Your task to perform on an android device: Go to Wikipedia Image 0: 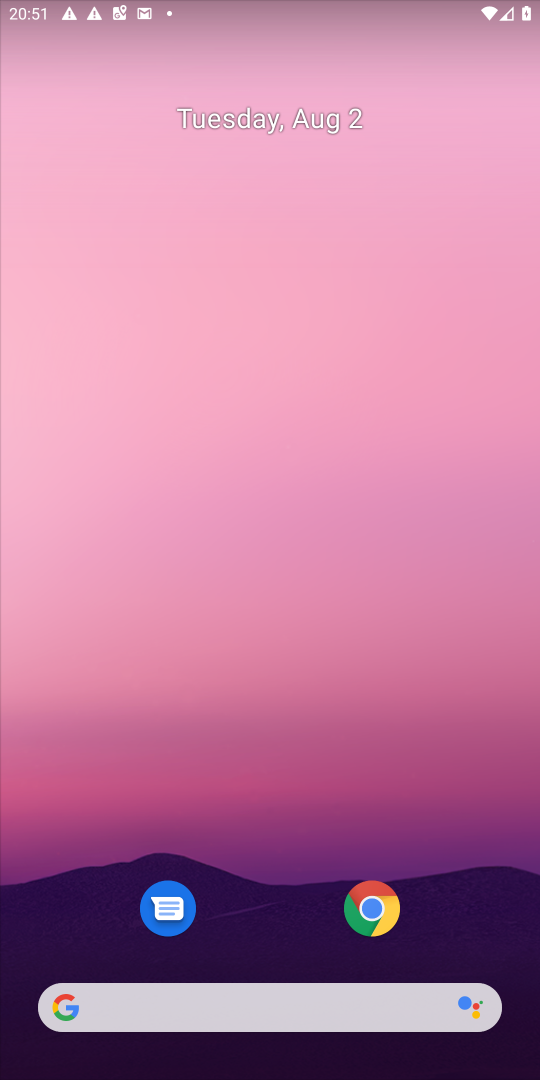
Step 0: drag from (361, 595) to (358, 214)
Your task to perform on an android device: Go to Wikipedia Image 1: 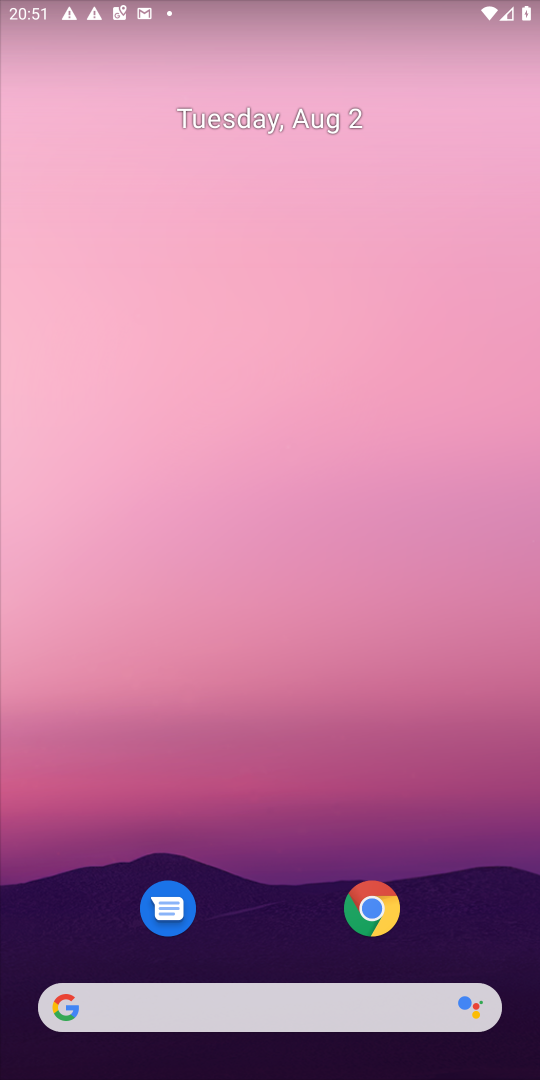
Step 1: drag from (401, 929) to (385, 170)
Your task to perform on an android device: Go to Wikipedia Image 2: 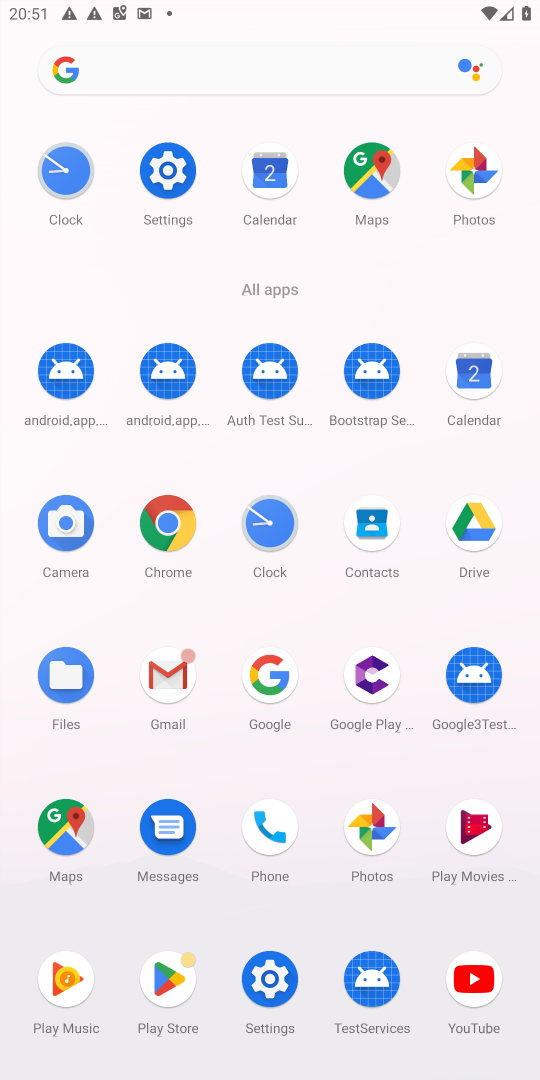
Step 2: click (161, 521)
Your task to perform on an android device: Go to Wikipedia Image 3: 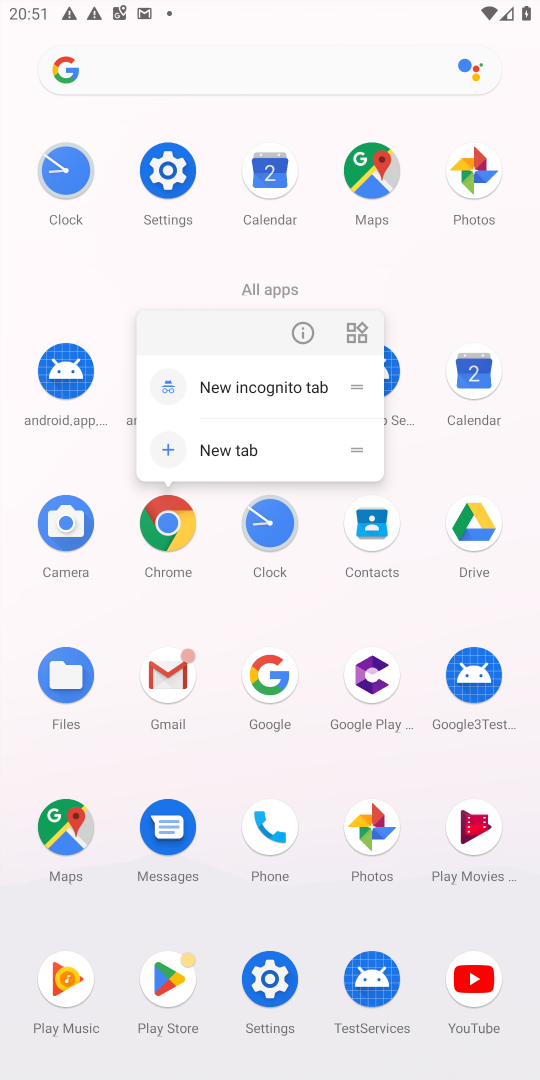
Step 3: click (171, 534)
Your task to perform on an android device: Go to Wikipedia Image 4: 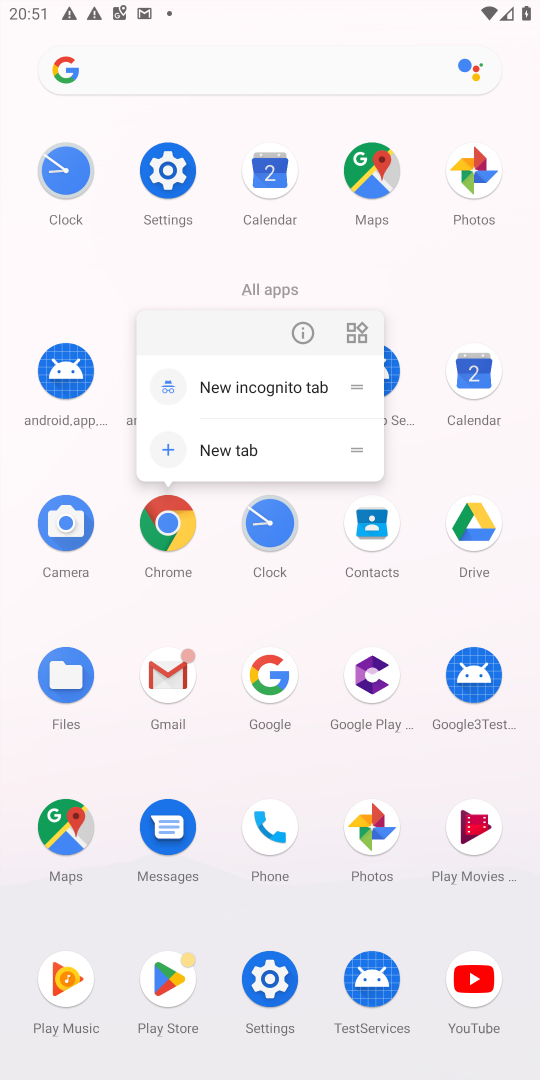
Step 4: click (150, 554)
Your task to perform on an android device: Go to Wikipedia Image 5: 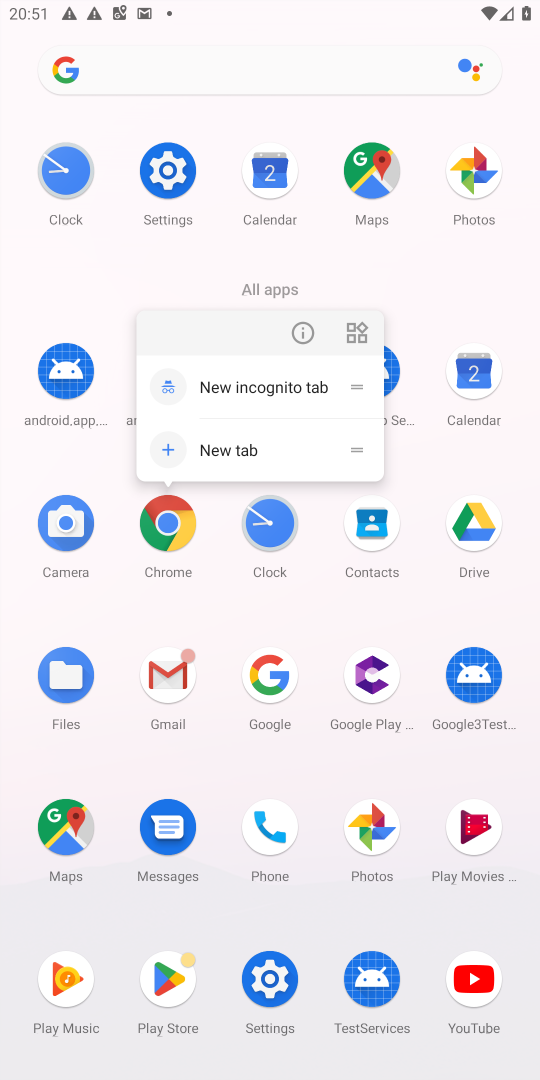
Step 5: click (164, 535)
Your task to perform on an android device: Go to Wikipedia Image 6: 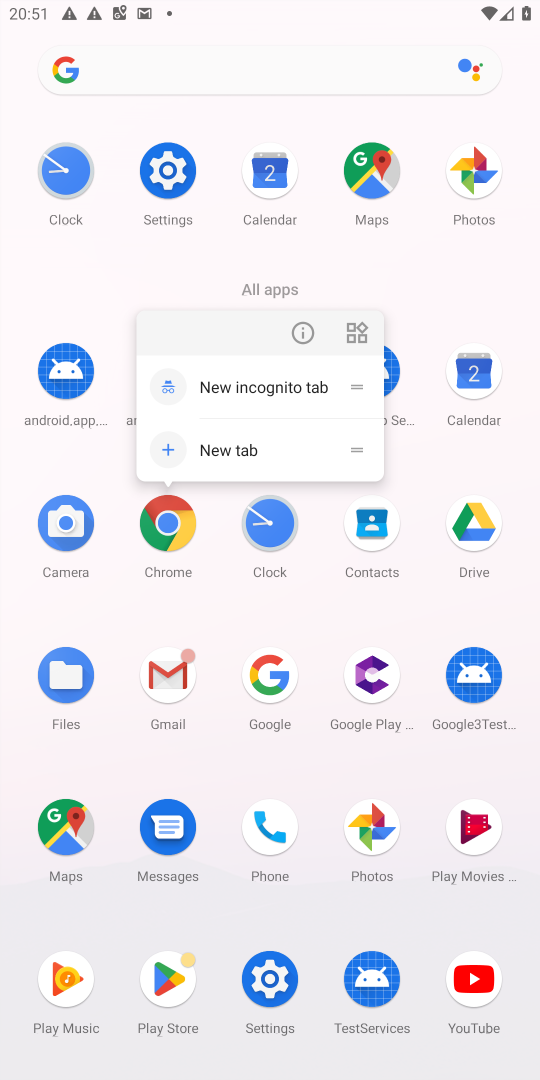
Step 6: click (164, 546)
Your task to perform on an android device: Go to Wikipedia Image 7: 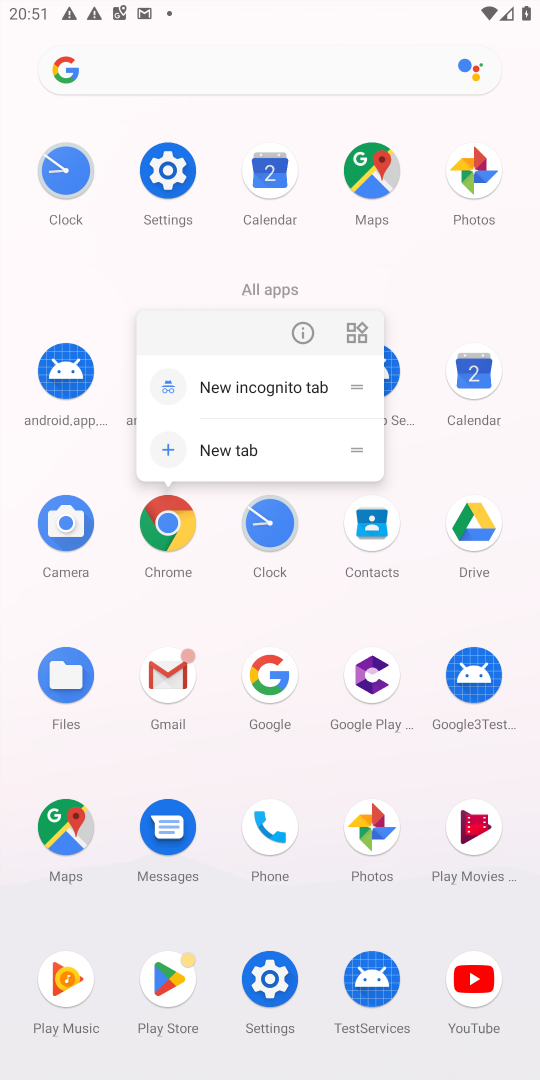
Step 7: click (160, 520)
Your task to perform on an android device: Go to Wikipedia Image 8: 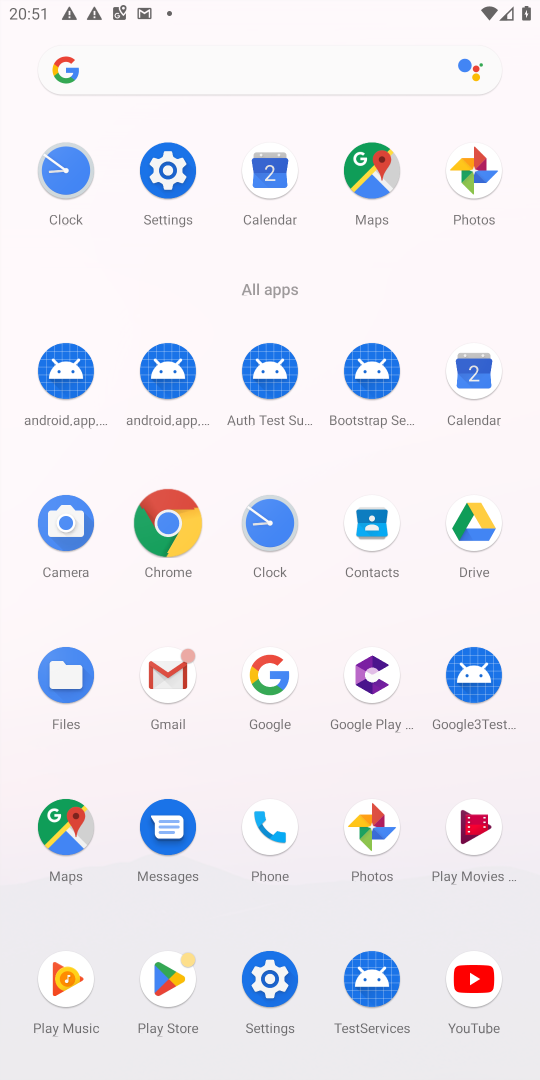
Step 8: click (160, 520)
Your task to perform on an android device: Go to Wikipedia Image 9: 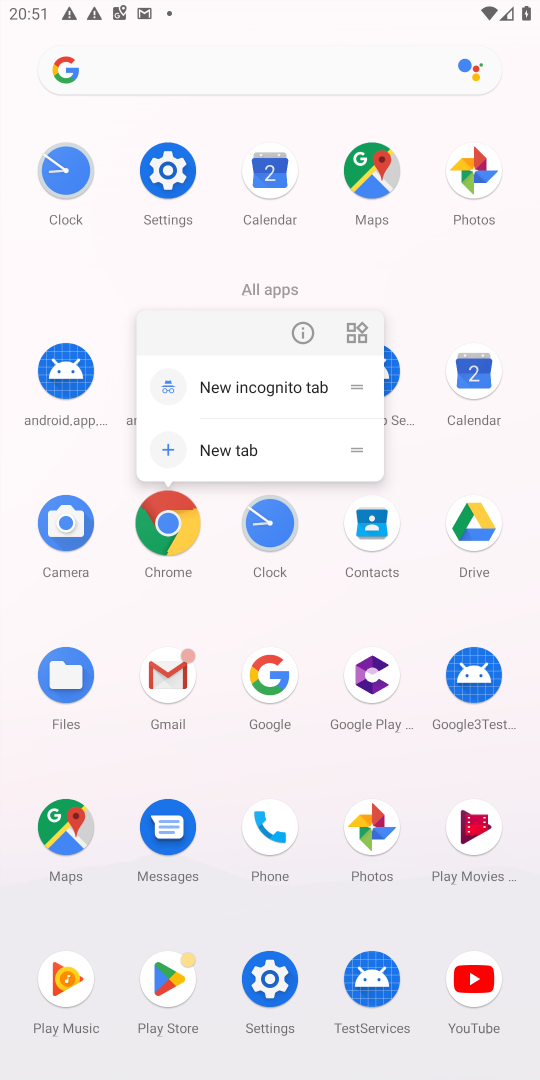
Step 9: click (160, 520)
Your task to perform on an android device: Go to Wikipedia Image 10: 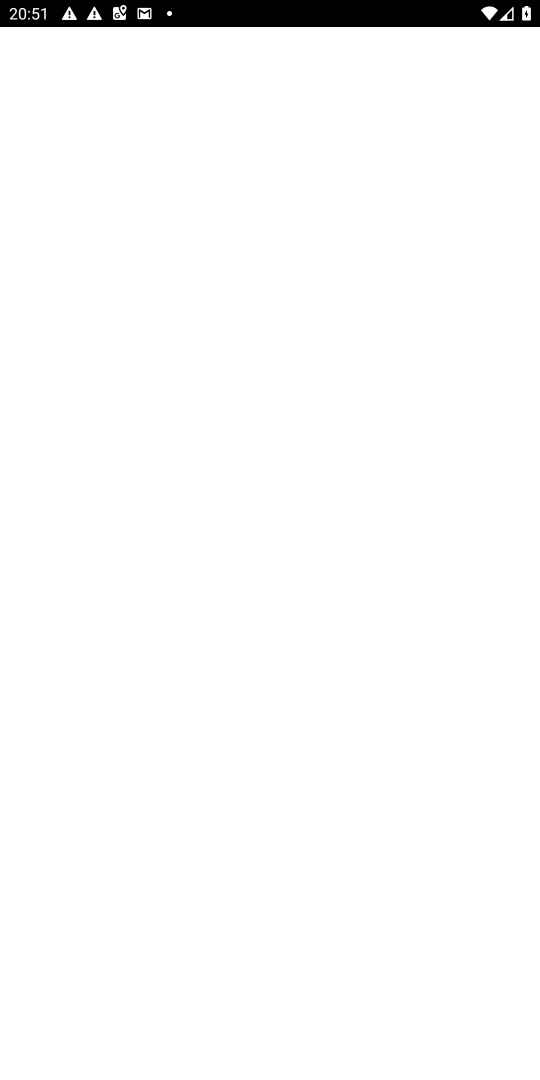
Step 10: click (167, 540)
Your task to perform on an android device: Go to Wikipedia Image 11: 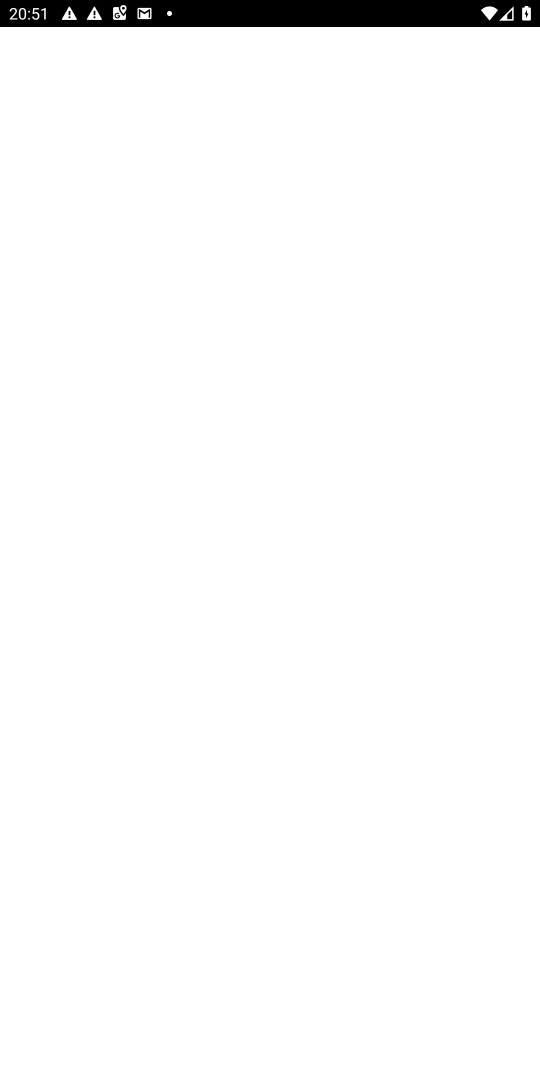
Step 11: click (167, 540)
Your task to perform on an android device: Go to Wikipedia Image 12: 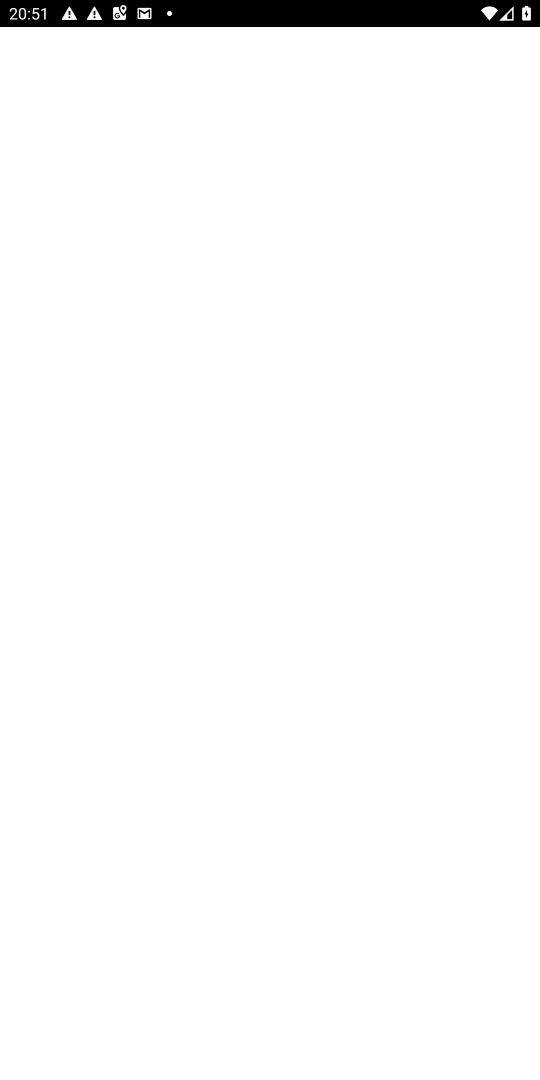
Step 12: click (167, 540)
Your task to perform on an android device: Go to Wikipedia Image 13: 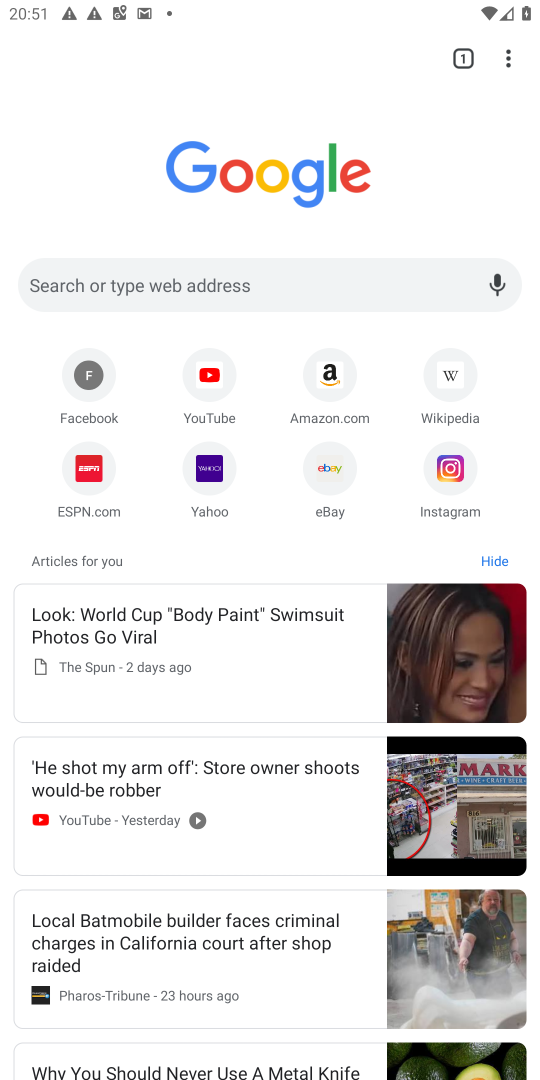
Step 13: click (296, 276)
Your task to perform on an android device: Go to Wikipedia Image 14: 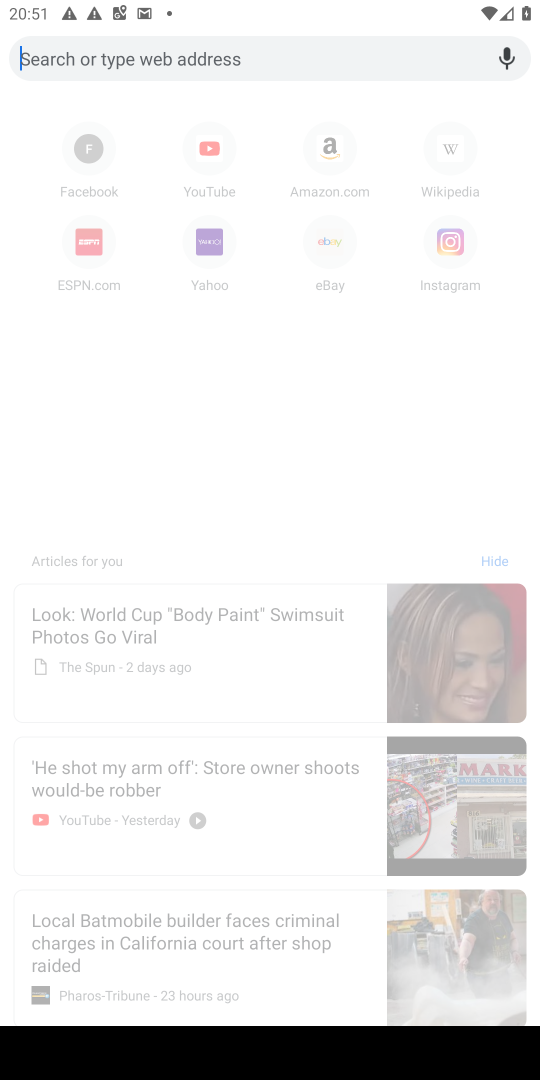
Step 14: click (413, 72)
Your task to perform on an android device: Go to Wikipedia Image 15: 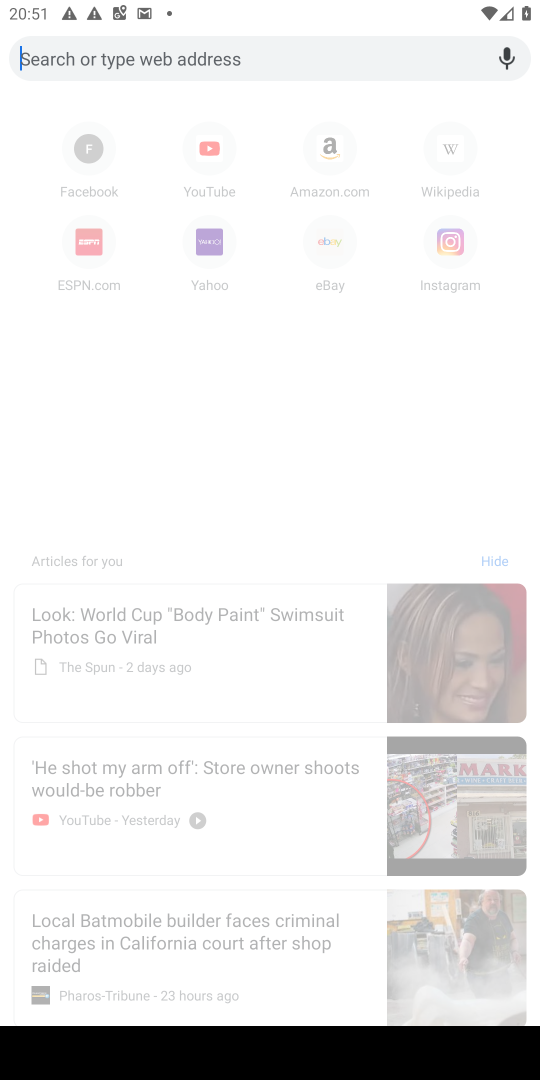
Step 15: click (245, 444)
Your task to perform on an android device: Go to Wikipedia Image 16: 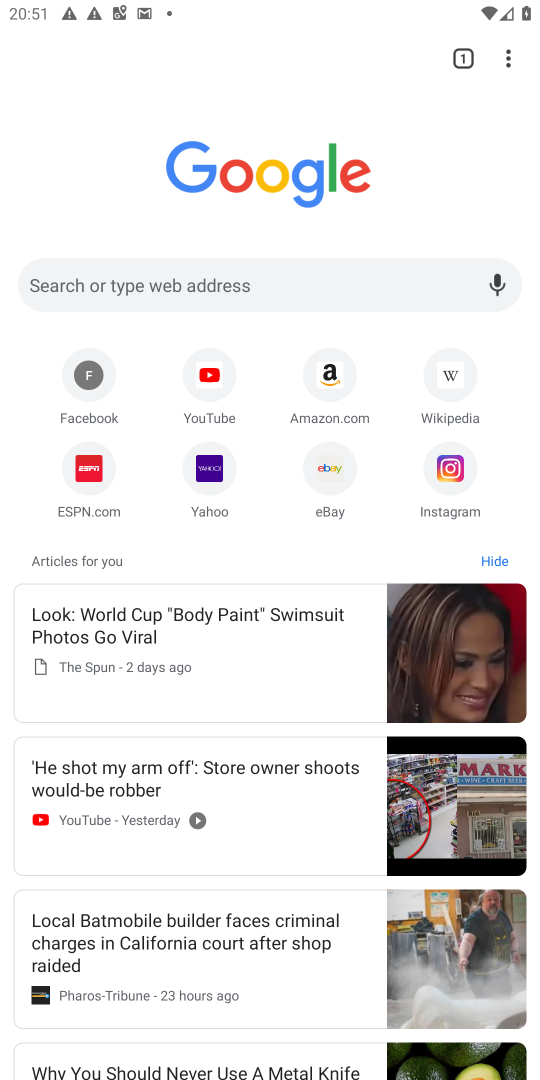
Step 16: click (460, 400)
Your task to perform on an android device: Go to Wikipedia Image 17: 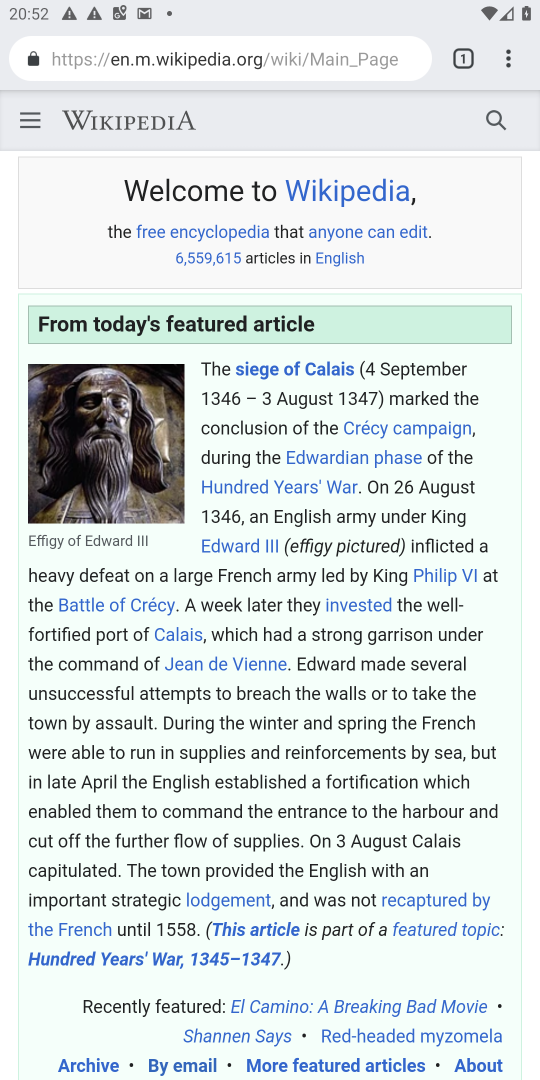
Step 17: task complete